Your task to perform on an android device: check android version Image 0: 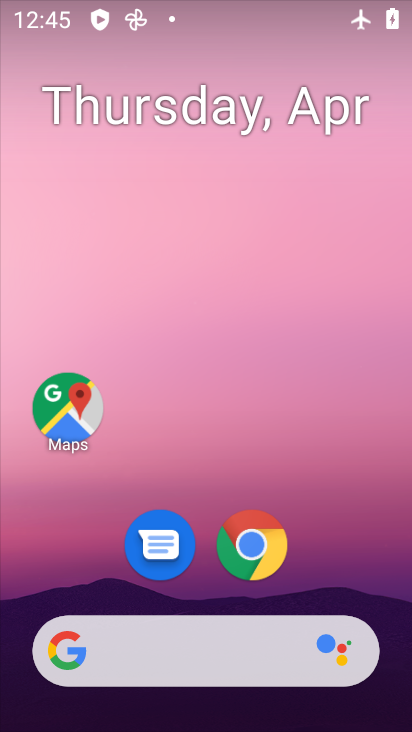
Step 0: drag from (355, 514) to (172, 65)
Your task to perform on an android device: check android version Image 1: 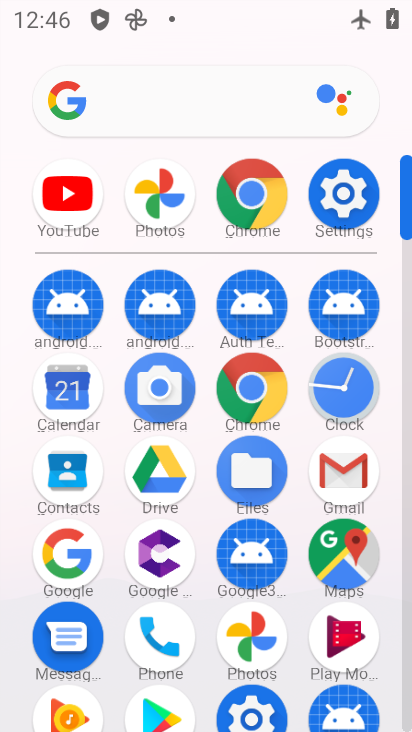
Step 1: click (329, 198)
Your task to perform on an android device: check android version Image 2: 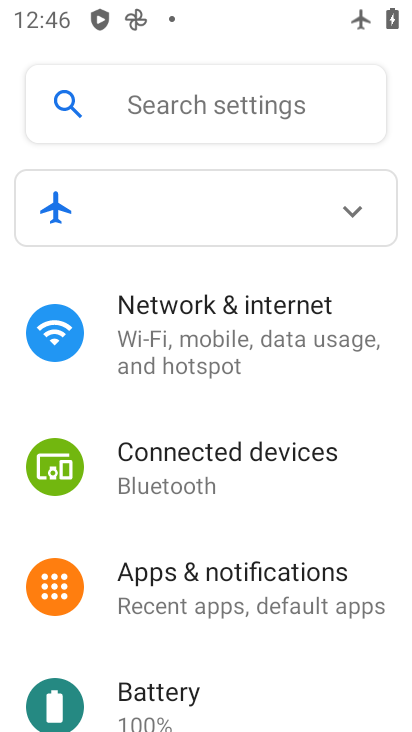
Step 2: drag from (272, 652) to (238, 50)
Your task to perform on an android device: check android version Image 3: 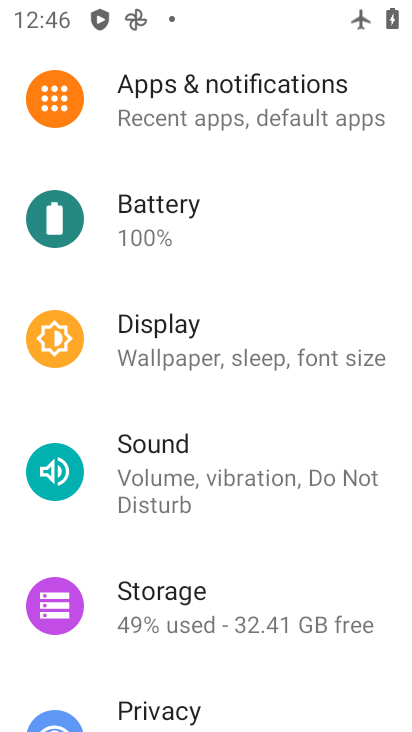
Step 3: drag from (249, 609) to (224, 120)
Your task to perform on an android device: check android version Image 4: 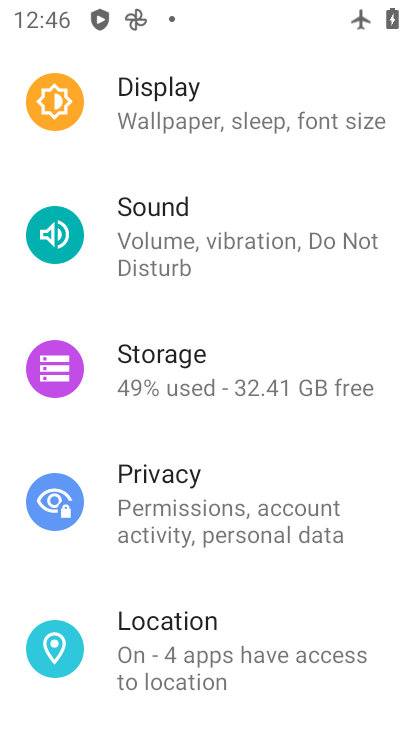
Step 4: drag from (264, 634) to (172, 91)
Your task to perform on an android device: check android version Image 5: 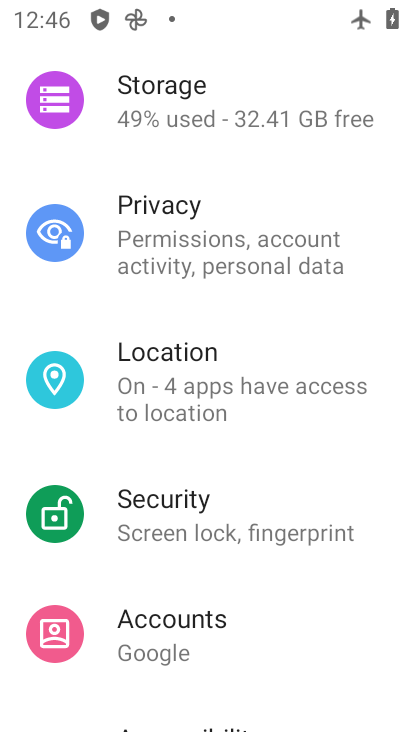
Step 5: drag from (195, 639) to (193, 146)
Your task to perform on an android device: check android version Image 6: 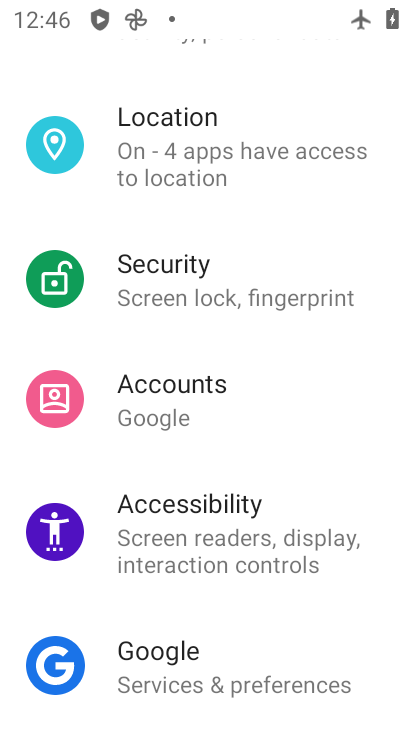
Step 6: drag from (195, 592) to (187, 139)
Your task to perform on an android device: check android version Image 7: 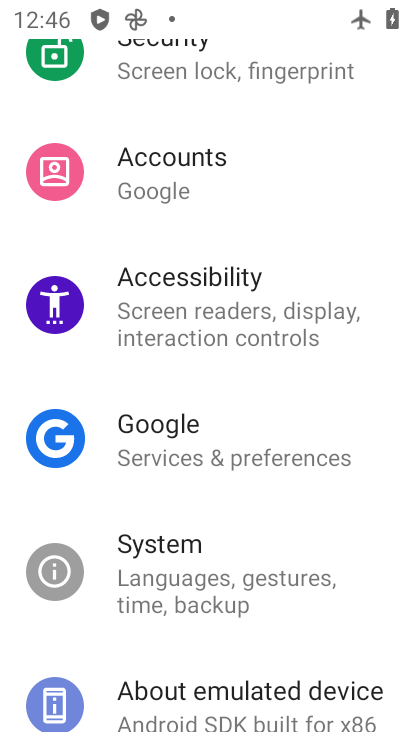
Step 7: click (213, 700)
Your task to perform on an android device: check android version Image 8: 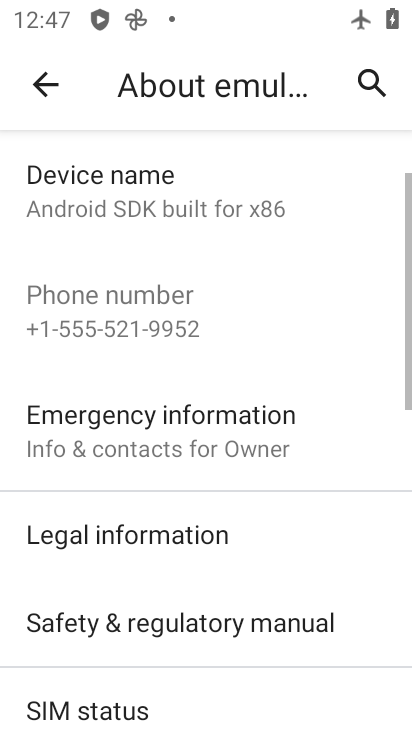
Step 8: drag from (256, 651) to (234, 89)
Your task to perform on an android device: check android version Image 9: 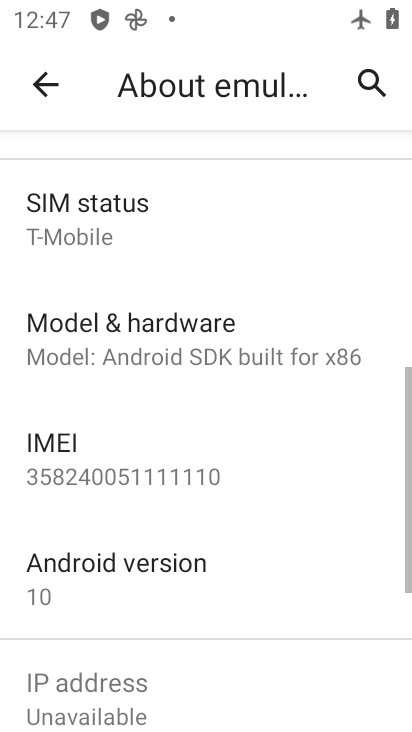
Step 9: click (109, 577)
Your task to perform on an android device: check android version Image 10: 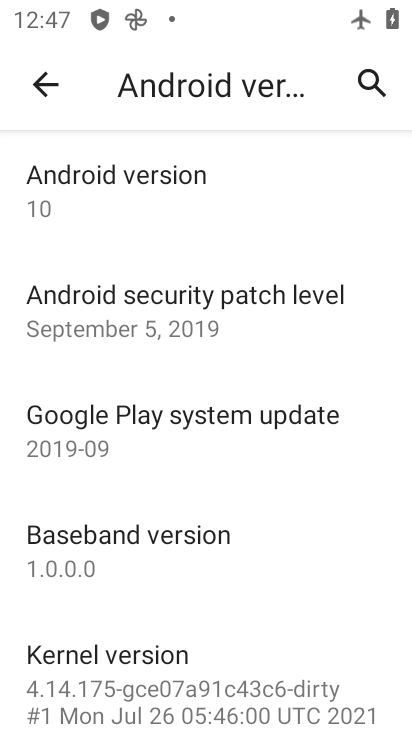
Step 10: task complete